Your task to perform on an android device: uninstall "Truecaller" Image 0: 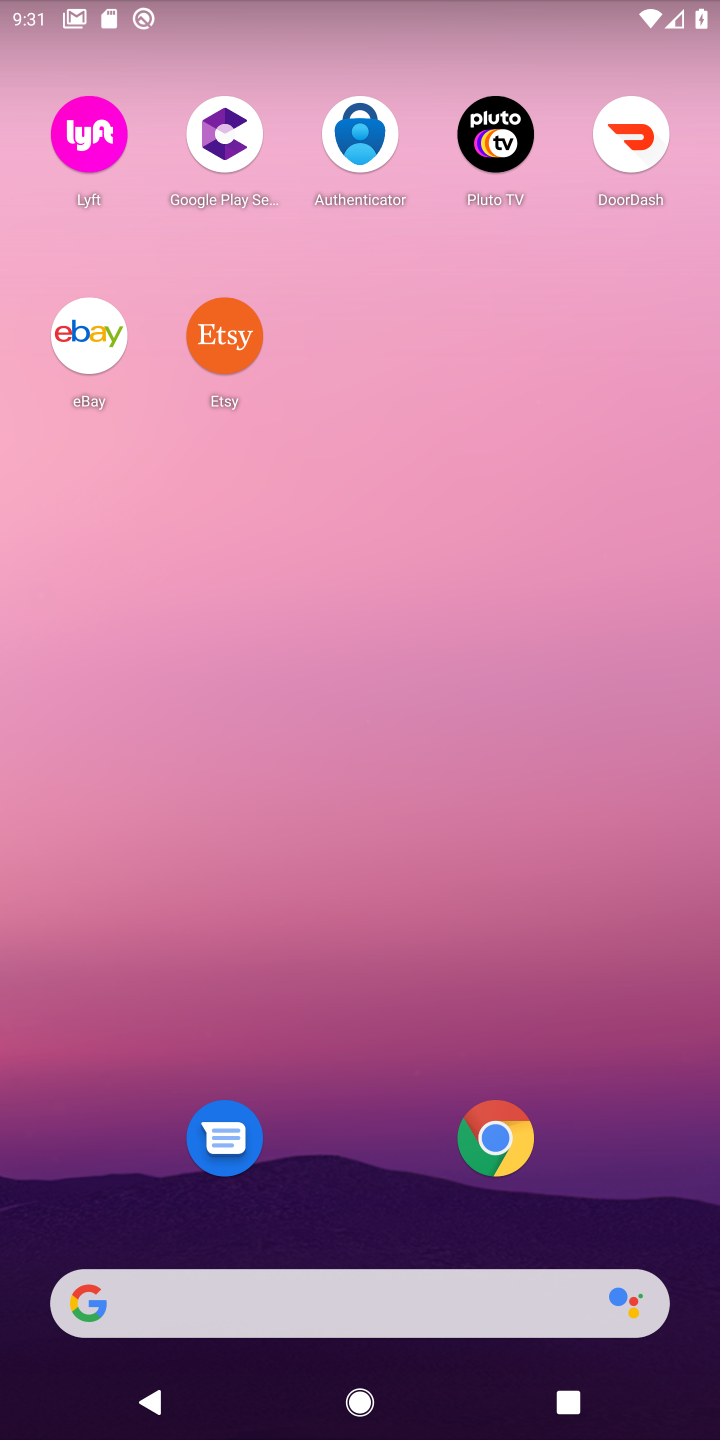
Step 0: drag from (332, 1233) to (229, 4)
Your task to perform on an android device: uninstall "Truecaller" Image 1: 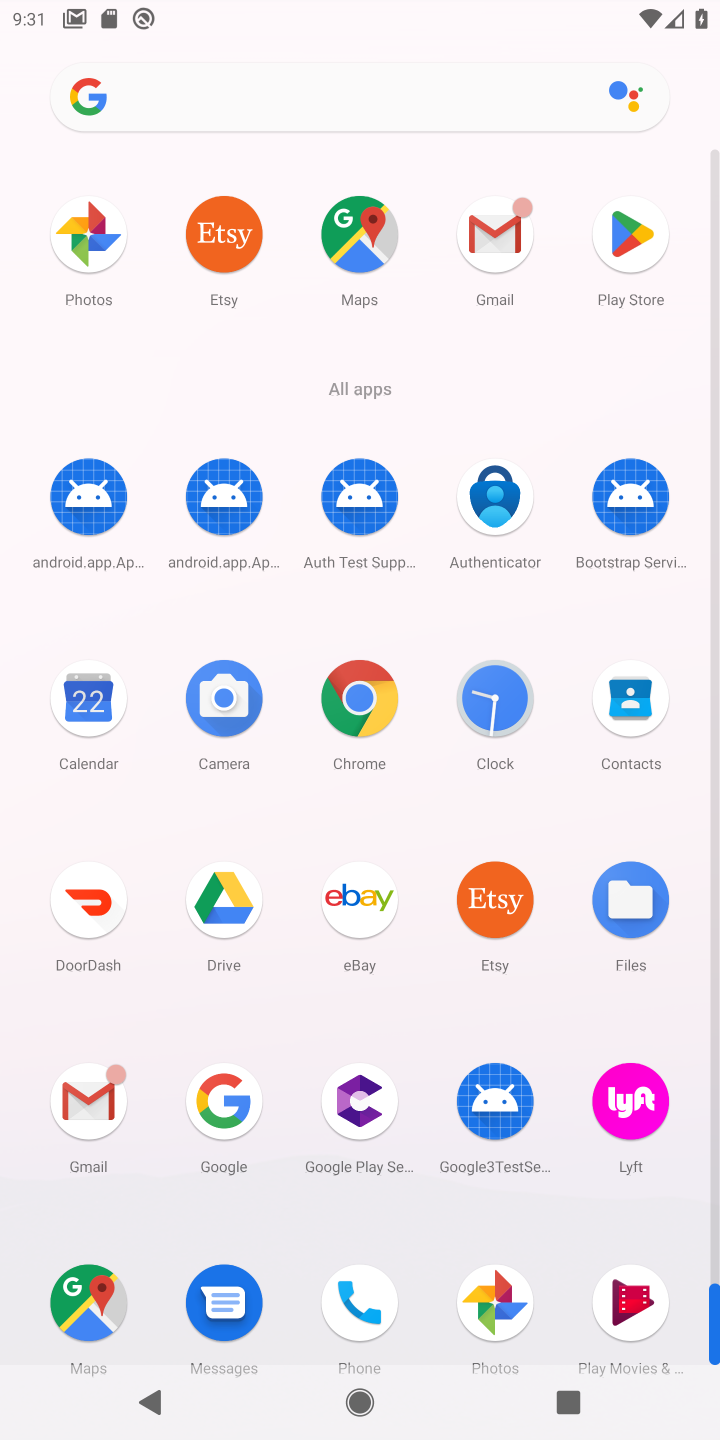
Step 1: click (632, 248)
Your task to perform on an android device: uninstall "Truecaller" Image 2: 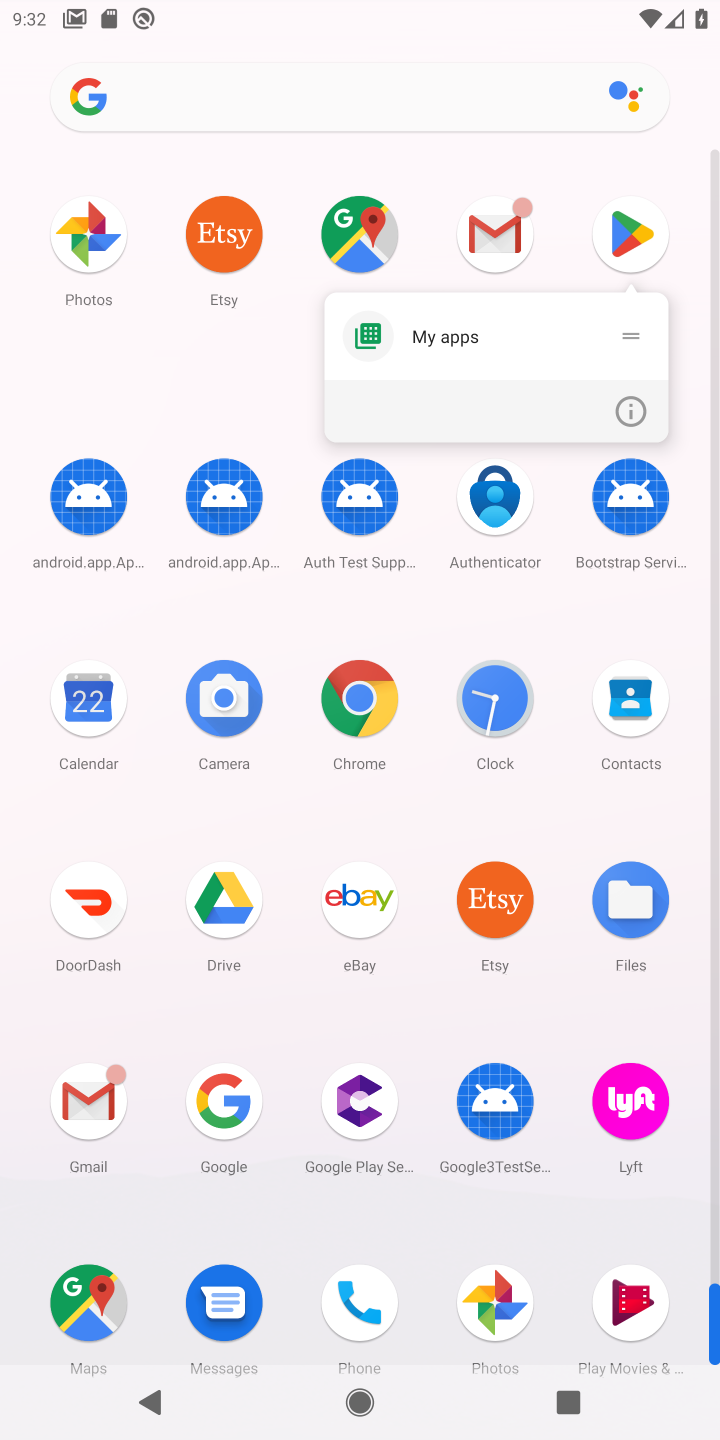
Step 2: click (619, 245)
Your task to perform on an android device: uninstall "Truecaller" Image 3: 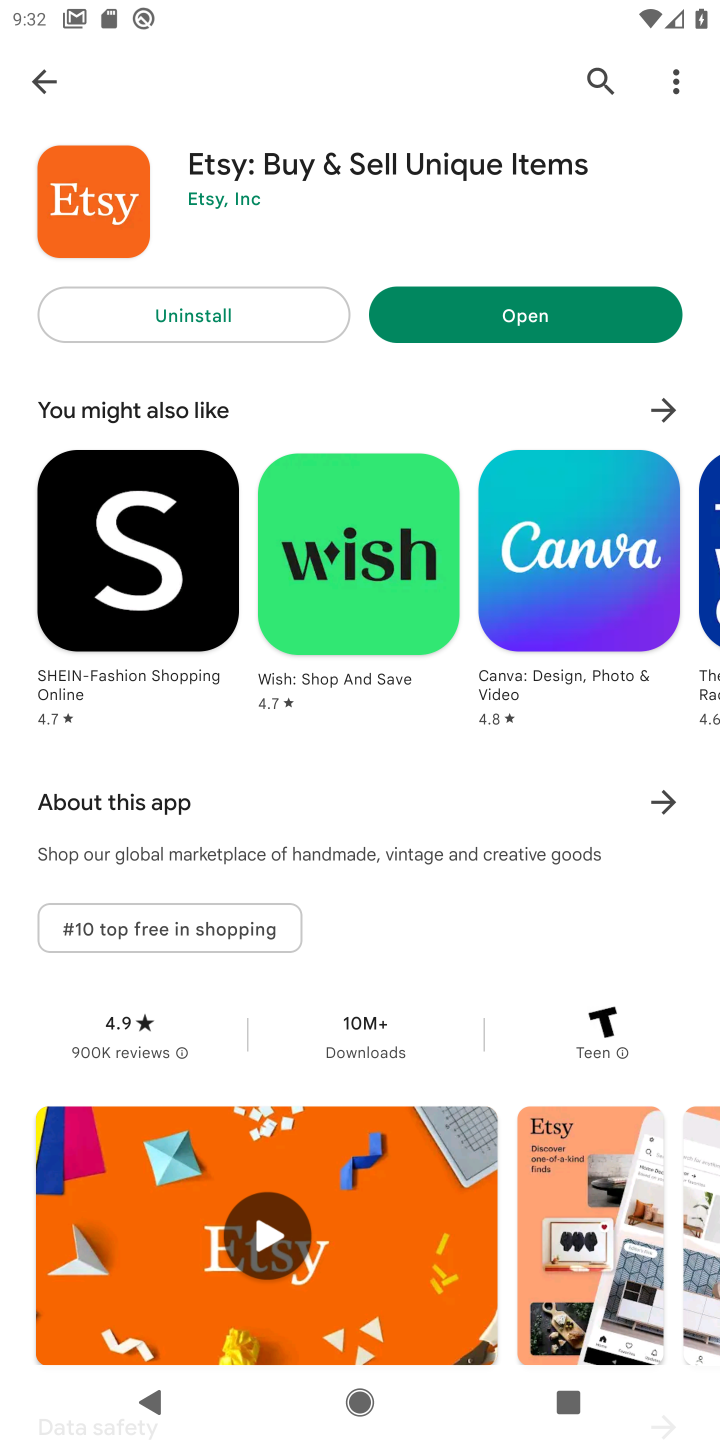
Step 3: click (619, 245)
Your task to perform on an android device: uninstall "Truecaller" Image 4: 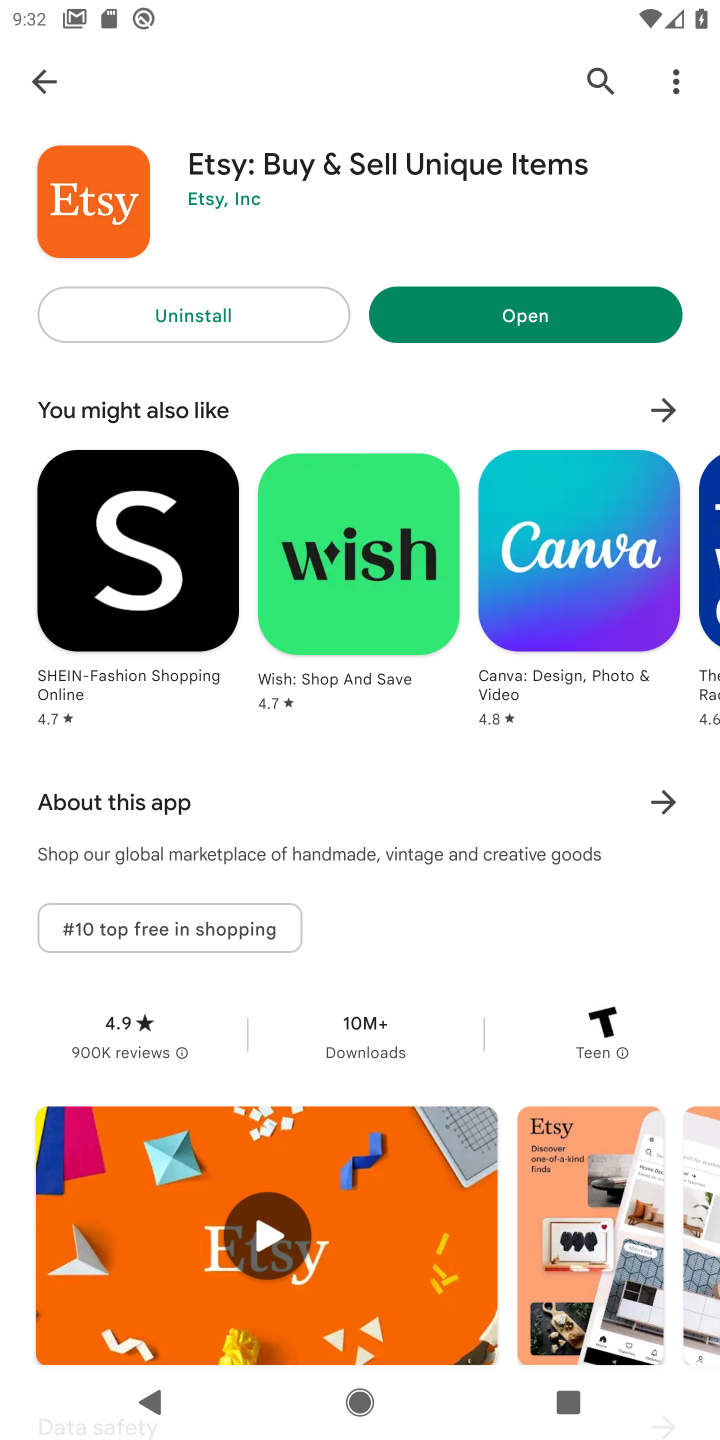
Step 4: click (34, 80)
Your task to perform on an android device: uninstall "Truecaller" Image 5: 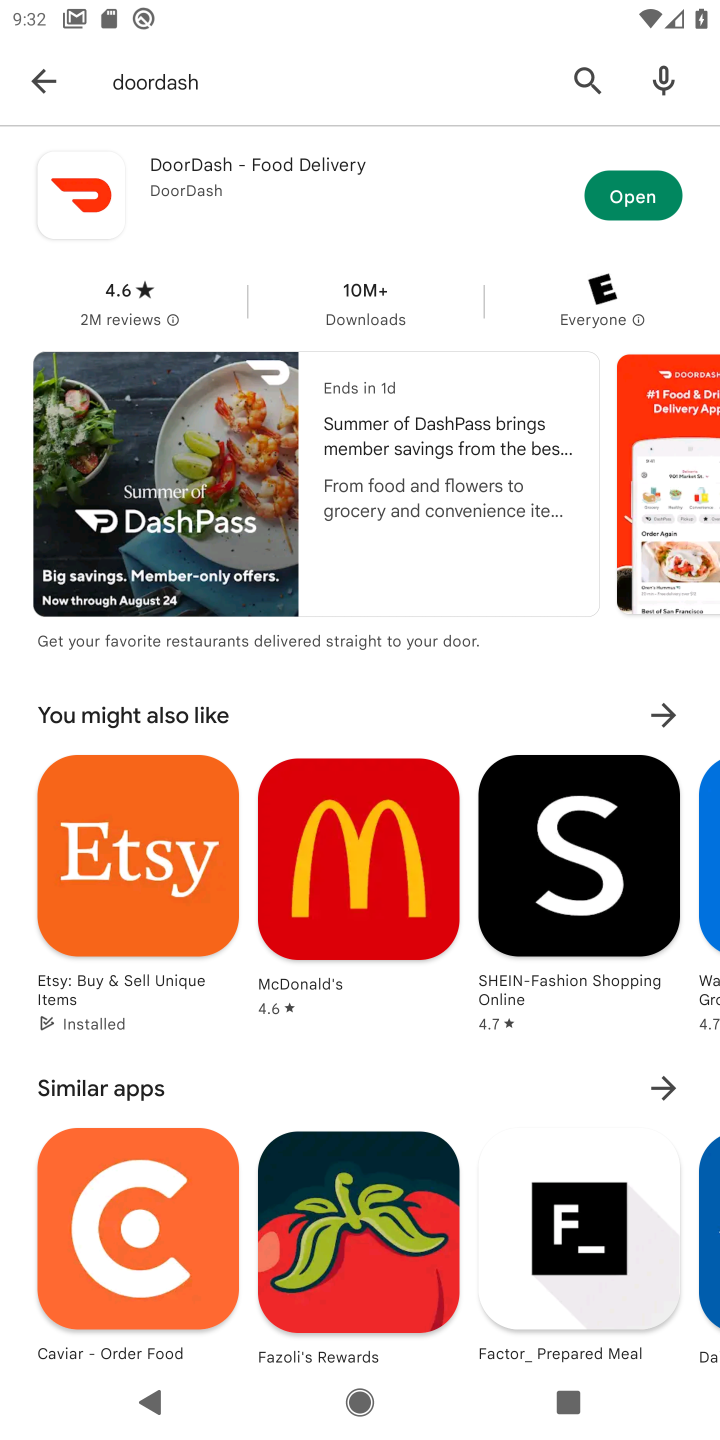
Step 5: click (585, 83)
Your task to perform on an android device: uninstall "Truecaller" Image 6: 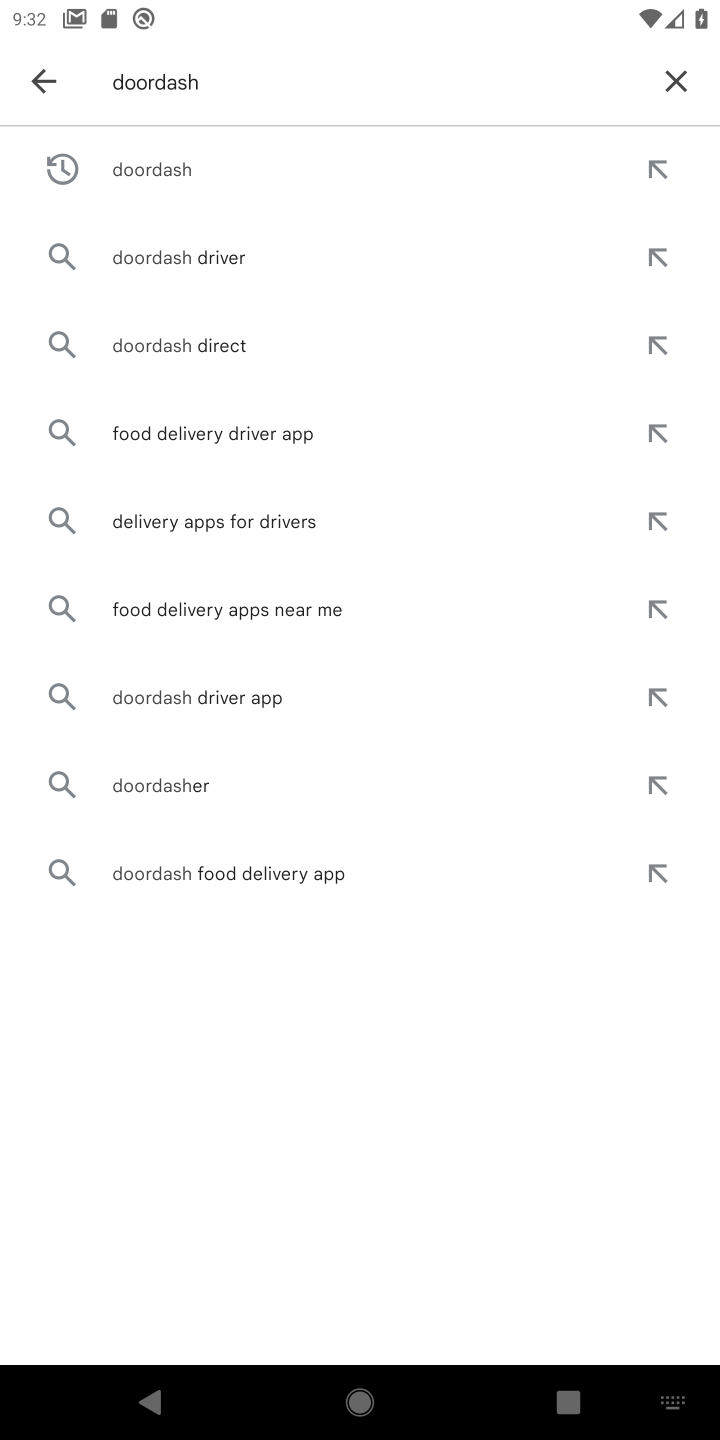
Step 6: click (683, 80)
Your task to perform on an android device: uninstall "Truecaller" Image 7: 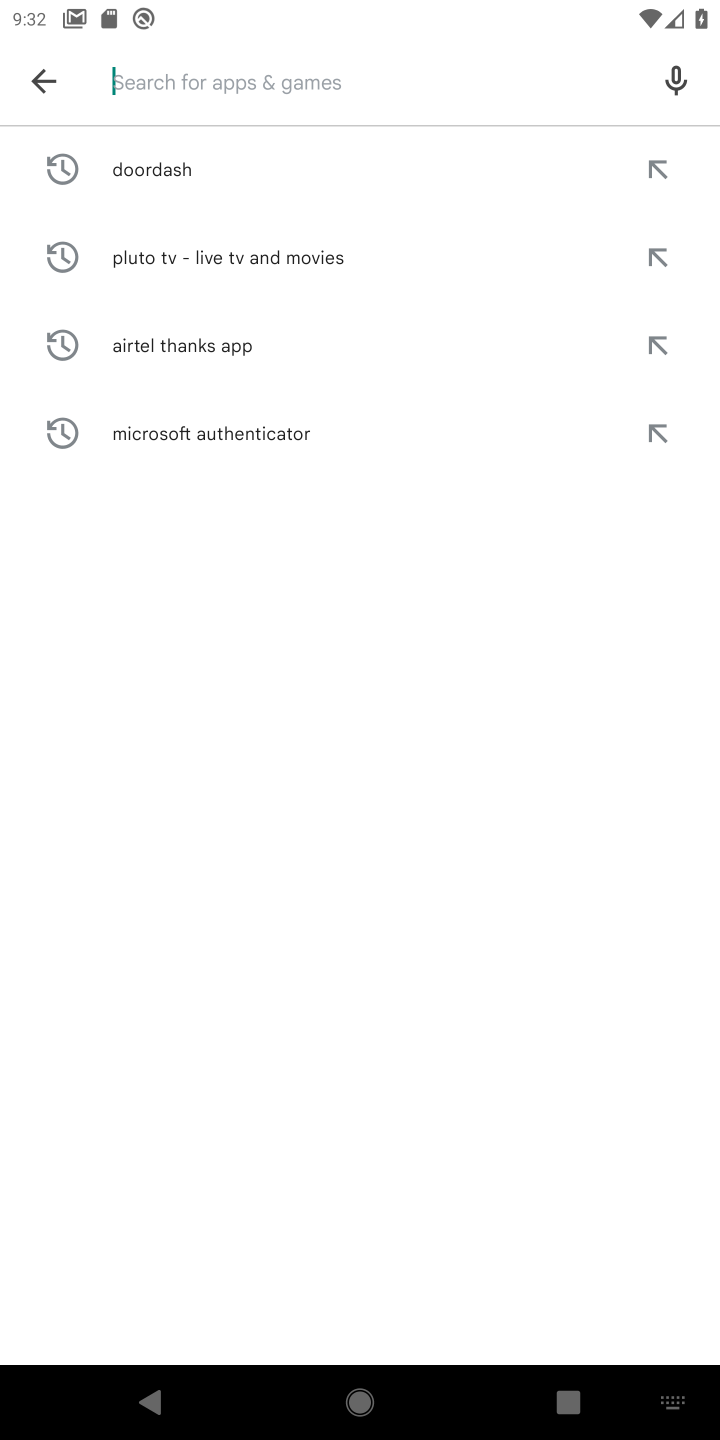
Step 7: type "truecaller"
Your task to perform on an android device: uninstall "Truecaller" Image 8: 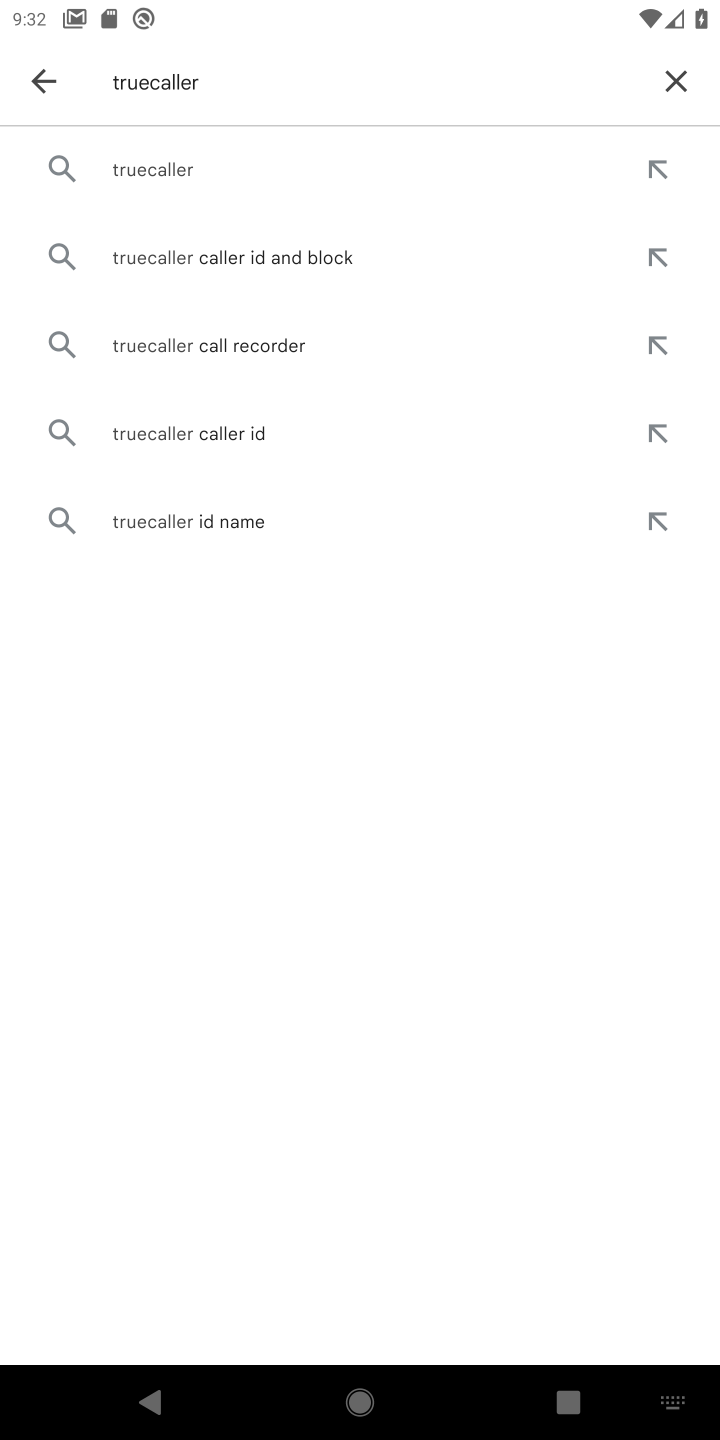
Step 8: click (325, 175)
Your task to perform on an android device: uninstall "Truecaller" Image 9: 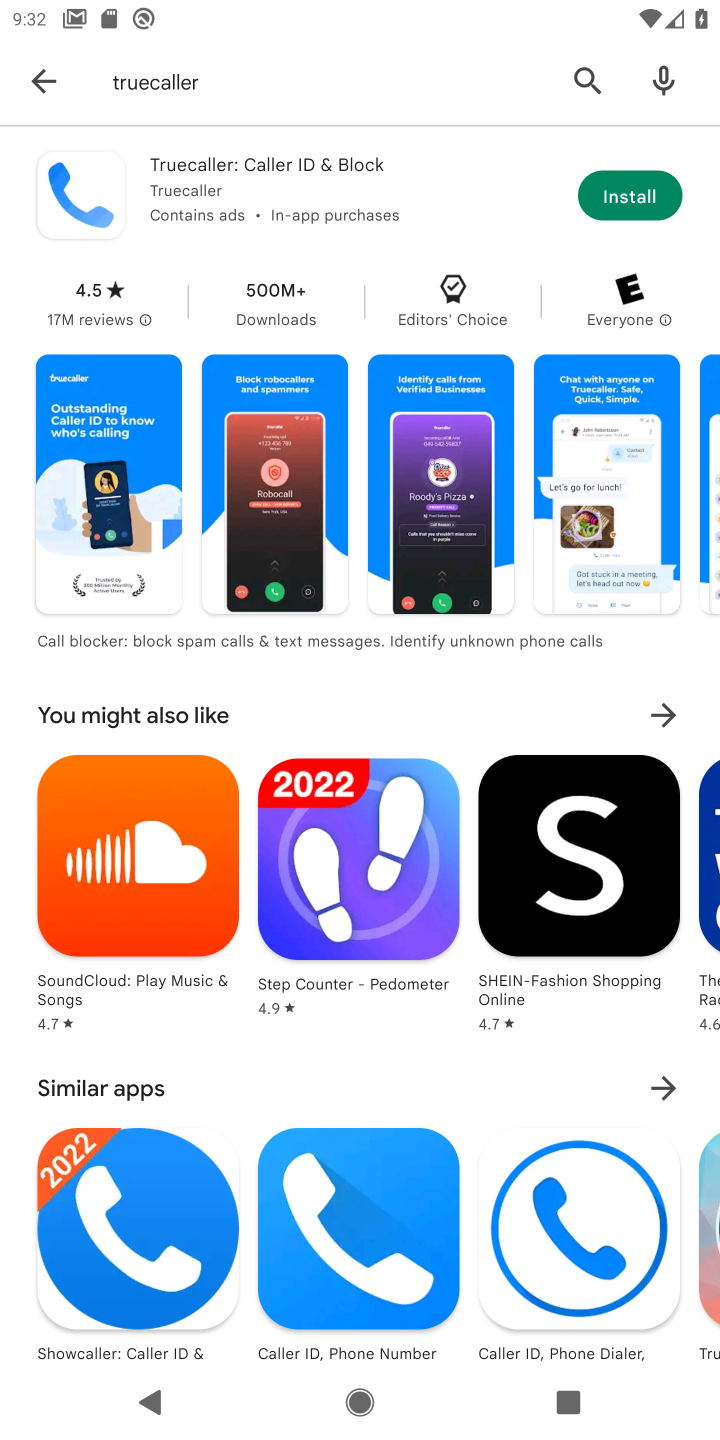
Step 9: task complete